Your task to perform on an android device: Search for vegetarian restaurants on Maps Image 0: 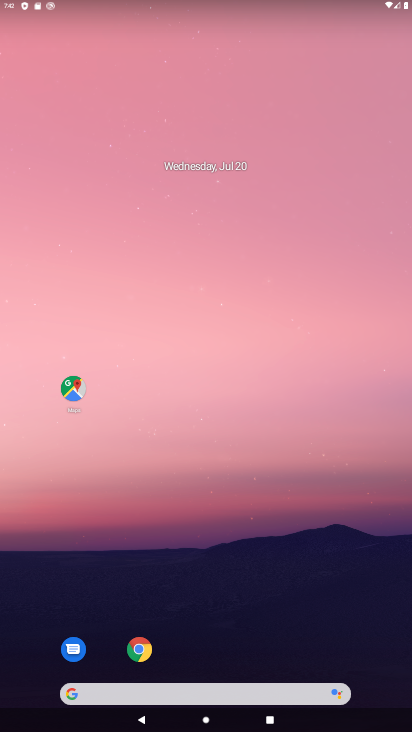
Step 0: click (84, 392)
Your task to perform on an android device: Search for vegetarian restaurants on Maps Image 1: 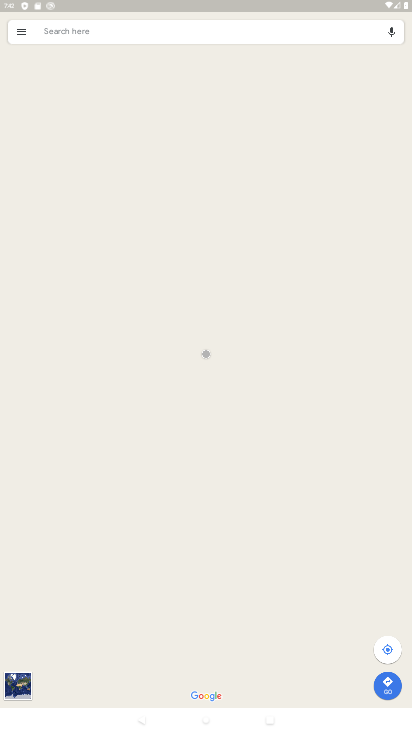
Step 1: click (279, 35)
Your task to perform on an android device: Search for vegetarian restaurants on Maps Image 2: 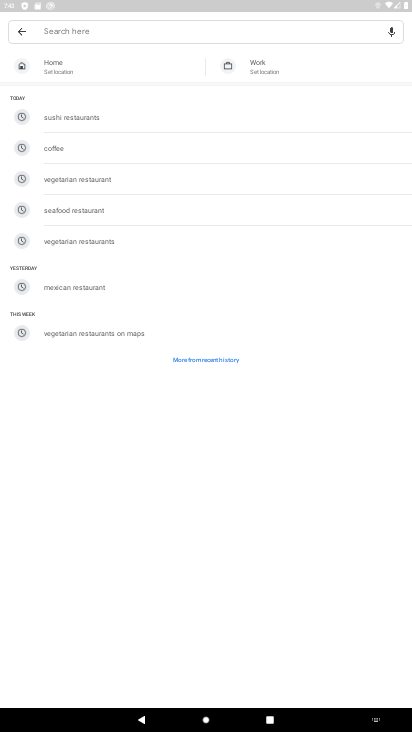
Step 2: click (142, 186)
Your task to perform on an android device: Search for vegetarian restaurants on Maps Image 3: 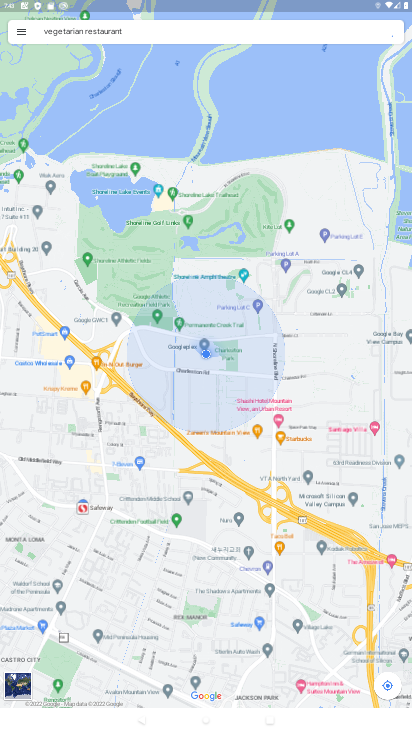
Step 3: task complete